Your task to perform on an android device: add a label to a message in the gmail app Image 0: 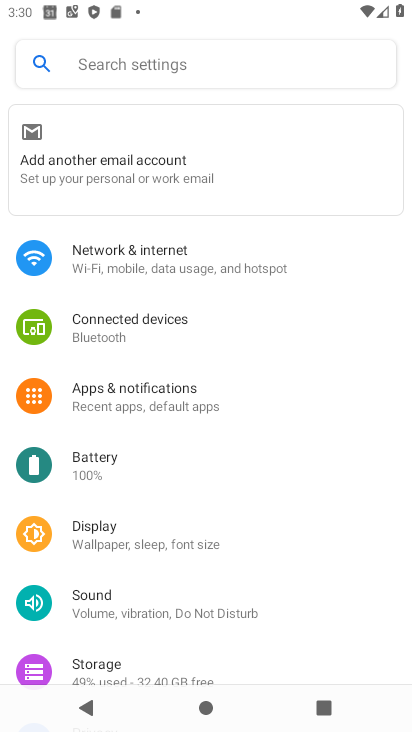
Step 0: press home button
Your task to perform on an android device: add a label to a message in the gmail app Image 1: 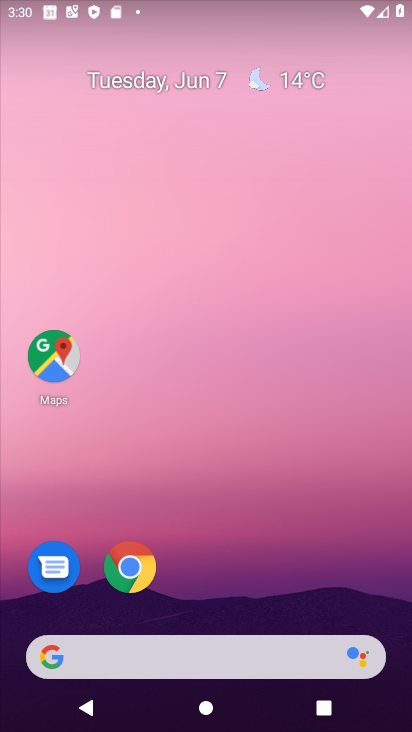
Step 1: drag from (234, 584) to (236, 232)
Your task to perform on an android device: add a label to a message in the gmail app Image 2: 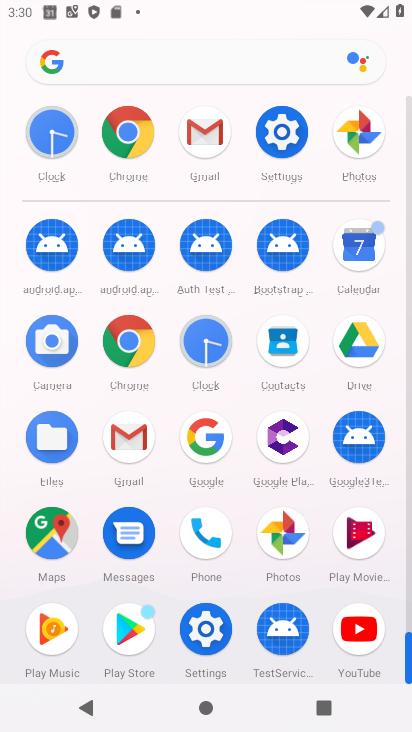
Step 2: click (220, 149)
Your task to perform on an android device: add a label to a message in the gmail app Image 3: 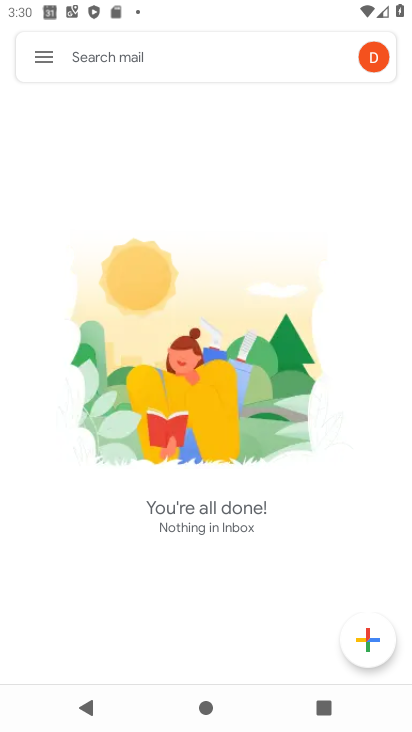
Step 3: click (38, 59)
Your task to perform on an android device: add a label to a message in the gmail app Image 4: 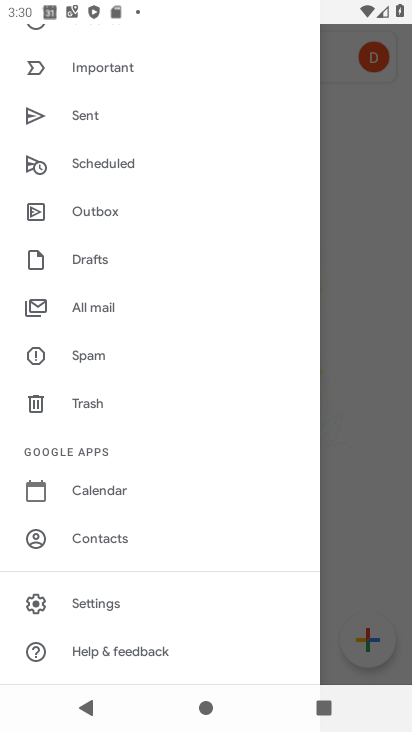
Step 4: click (105, 306)
Your task to perform on an android device: add a label to a message in the gmail app Image 5: 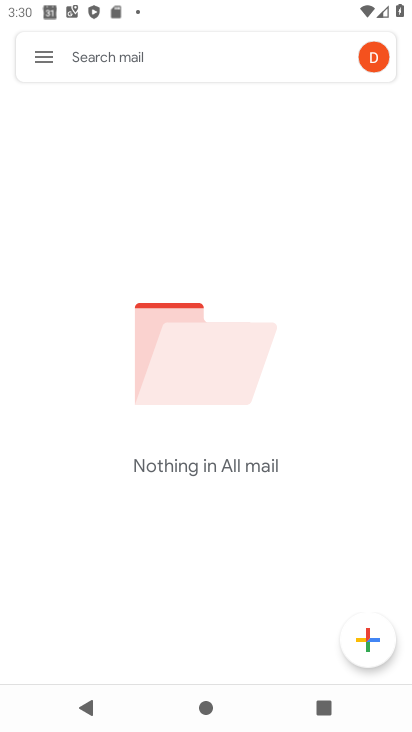
Step 5: task complete